Your task to perform on an android device: set the timer Image 0: 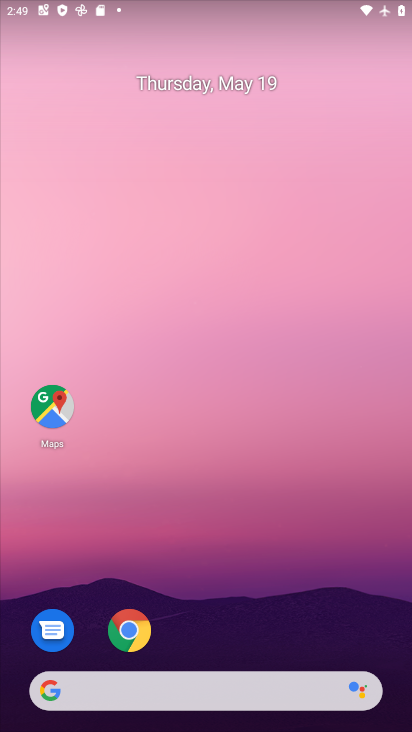
Step 0: drag from (397, 655) to (312, 44)
Your task to perform on an android device: set the timer Image 1: 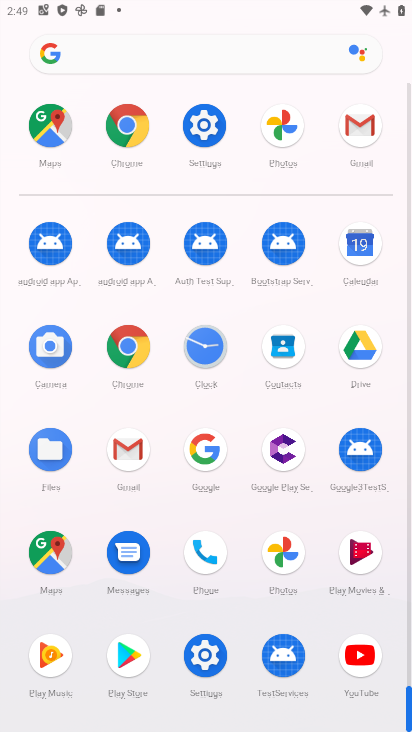
Step 1: click (202, 342)
Your task to perform on an android device: set the timer Image 2: 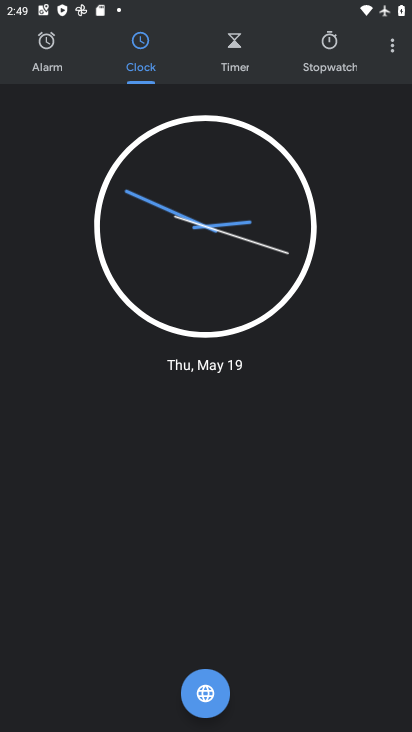
Step 2: click (233, 47)
Your task to perform on an android device: set the timer Image 3: 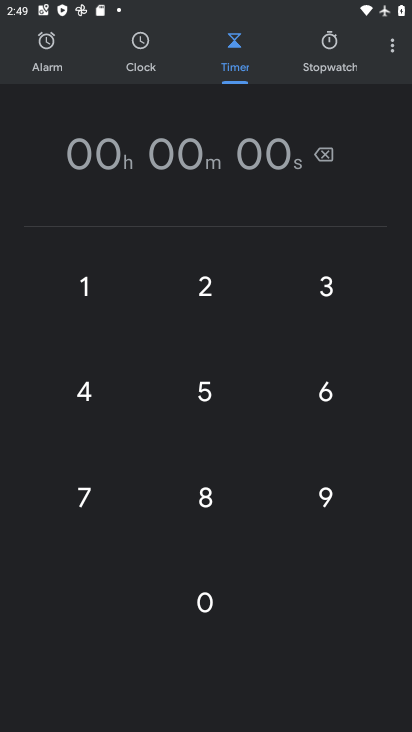
Step 3: click (84, 292)
Your task to perform on an android device: set the timer Image 4: 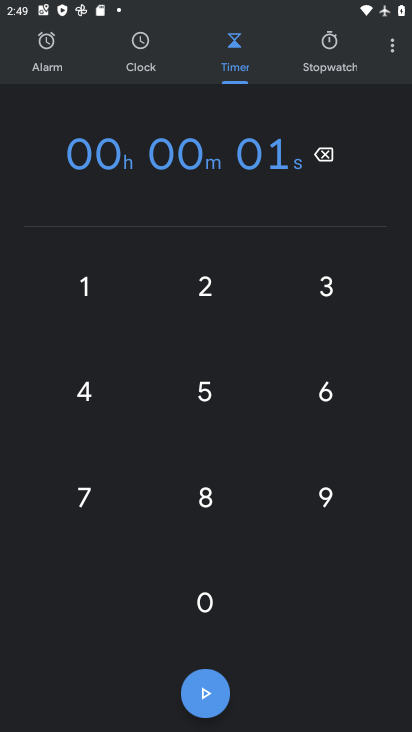
Step 4: click (323, 277)
Your task to perform on an android device: set the timer Image 5: 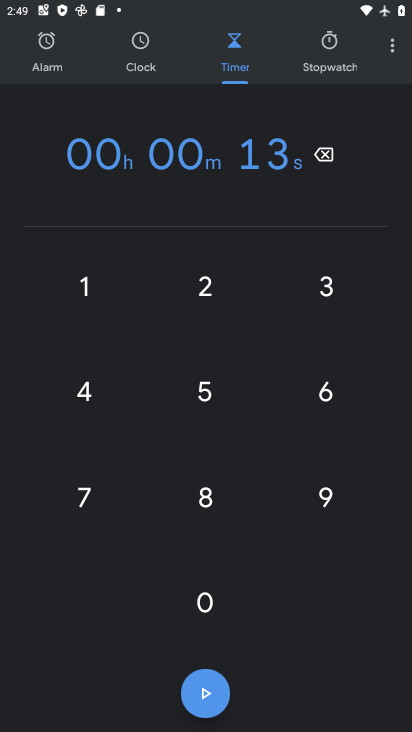
Step 5: click (203, 597)
Your task to perform on an android device: set the timer Image 6: 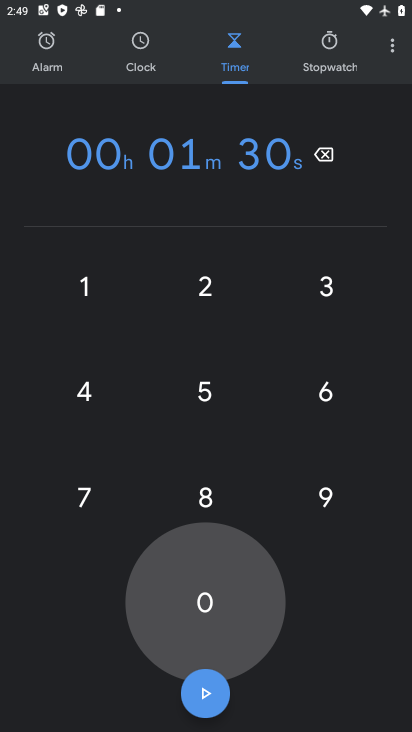
Step 6: click (203, 597)
Your task to perform on an android device: set the timer Image 7: 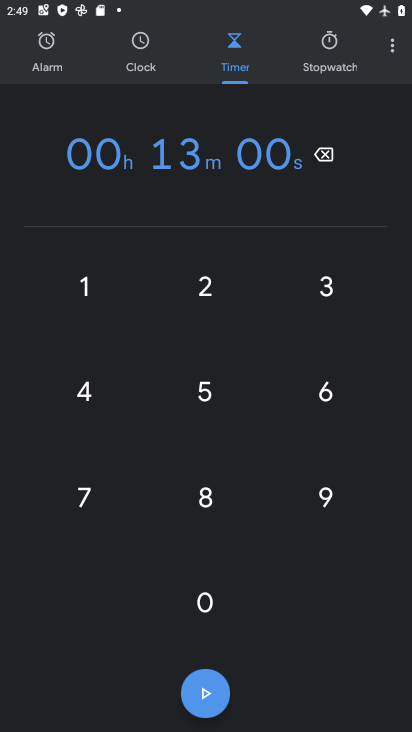
Step 7: click (203, 597)
Your task to perform on an android device: set the timer Image 8: 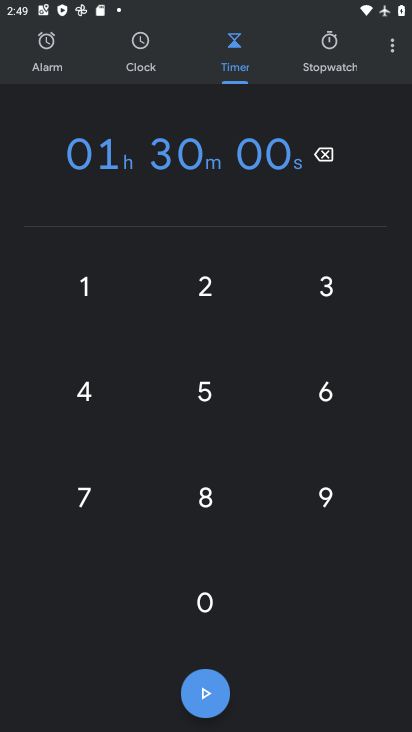
Step 8: task complete